Your task to perform on an android device: toggle airplane mode Image 0: 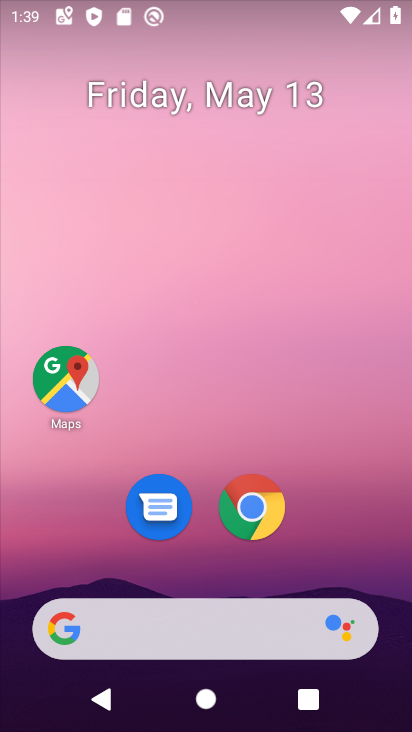
Step 0: click (123, 77)
Your task to perform on an android device: toggle airplane mode Image 1: 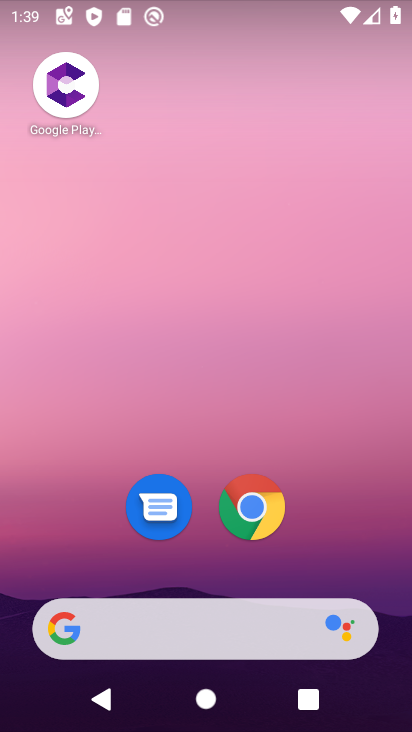
Step 1: drag from (326, 517) to (212, 75)
Your task to perform on an android device: toggle airplane mode Image 2: 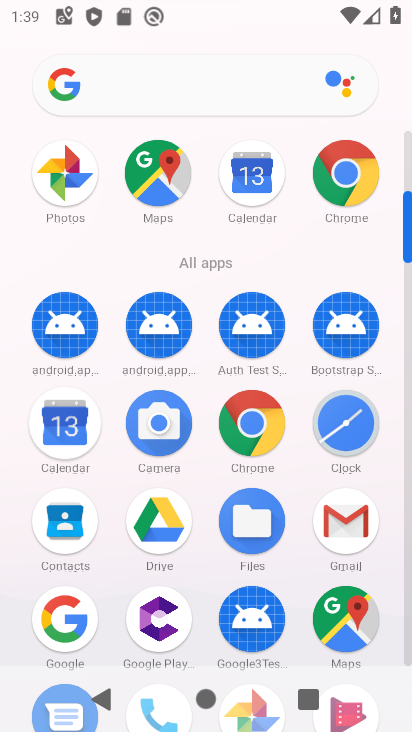
Step 2: drag from (295, 504) to (268, 2)
Your task to perform on an android device: toggle airplane mode Image 3: 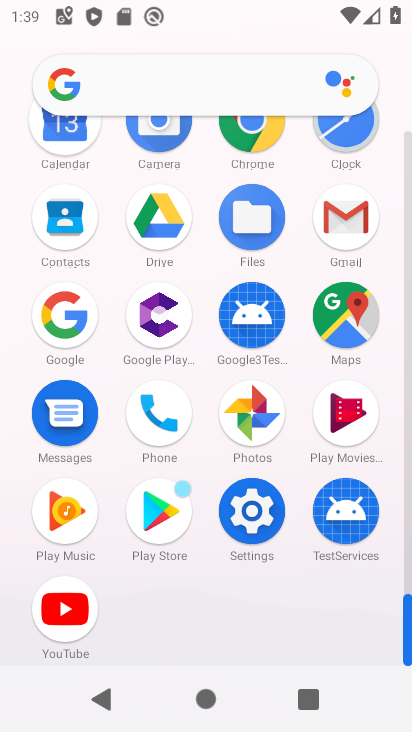
Step 3: click (252, 517)
Your task to perform on an android device: toggle airplane mode Image 4: 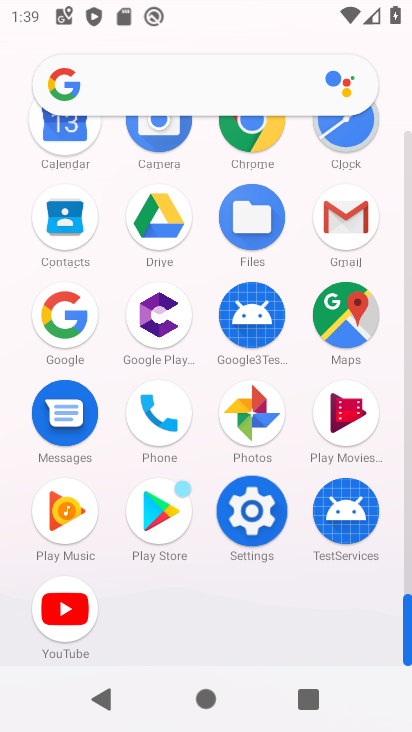
Step 4: click (255, 515)
Your task to perform on an android device: toggle airplane mode Image 5: 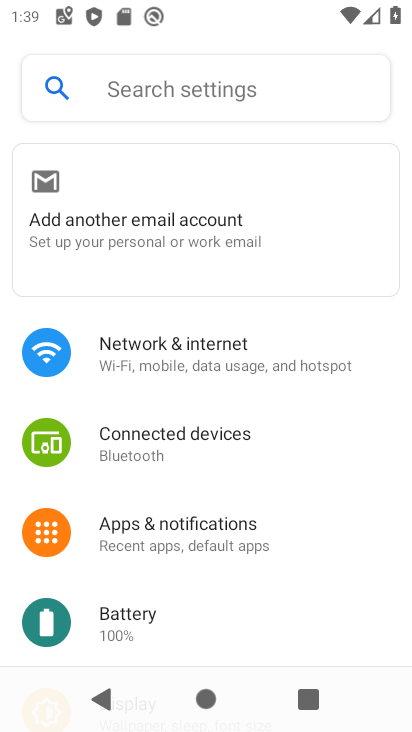
Step 5: drag from (195, 442) to (182, 156)
Your task to perform on an android device: toggle airplane mode Image 6: 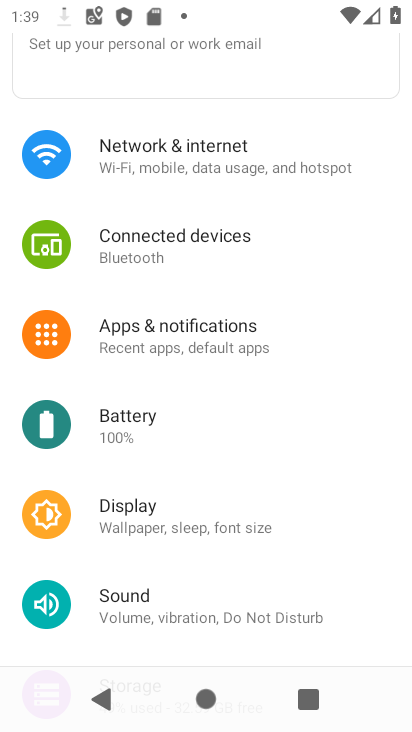
Step 6: click (165, 165)
Your task to perform on an android device: toggle airplane mode Image 7: 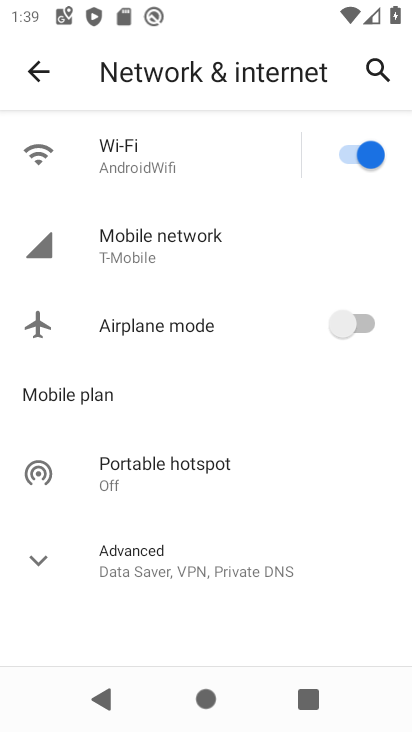
Step 7: click (335, 320)
Your task to perform on an android device: toggle airplane mode Image 8: 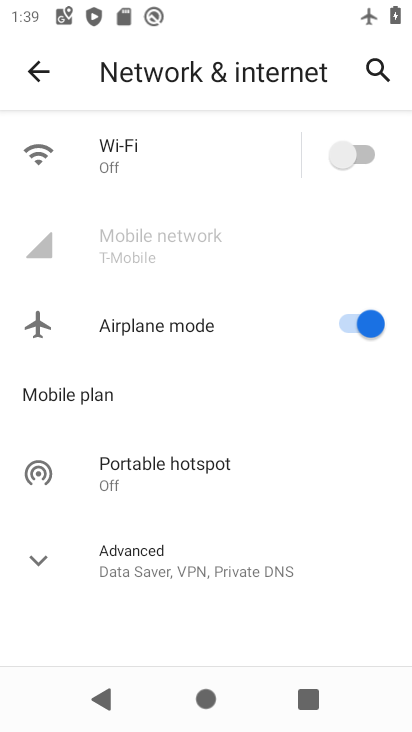
Step 8: task complete